Your task to perform on an android device: Go to privacy settings Image 0: 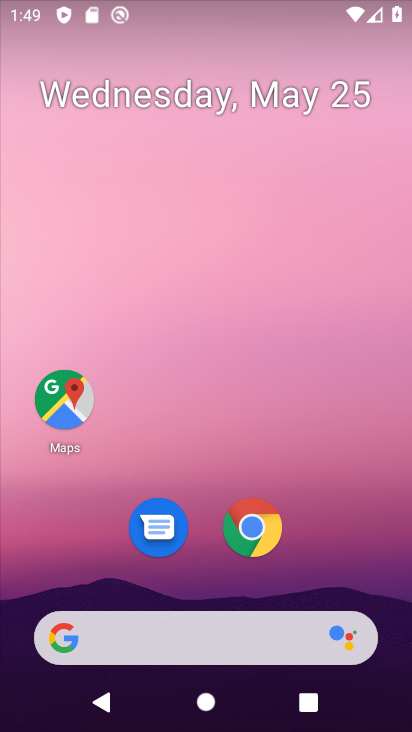
Step 0: click (248, 522)
Your task to perform on an android device: Go to privacy settings Image 1: 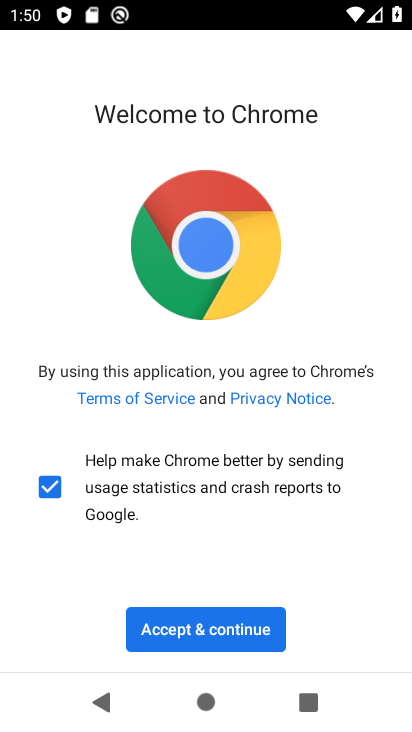
Step 1: click (241, 630)
Your task to perform on an android device: Go to privacy settings Image 2: 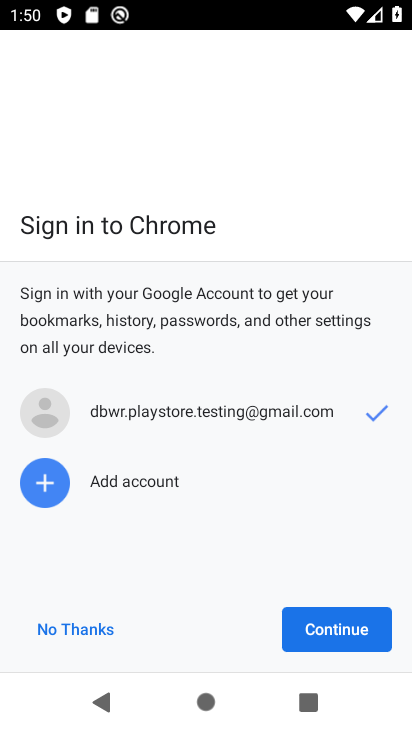
Step 2: click (317, 651)
Your task to perform on an android device: Go to privacy settings Image 3: 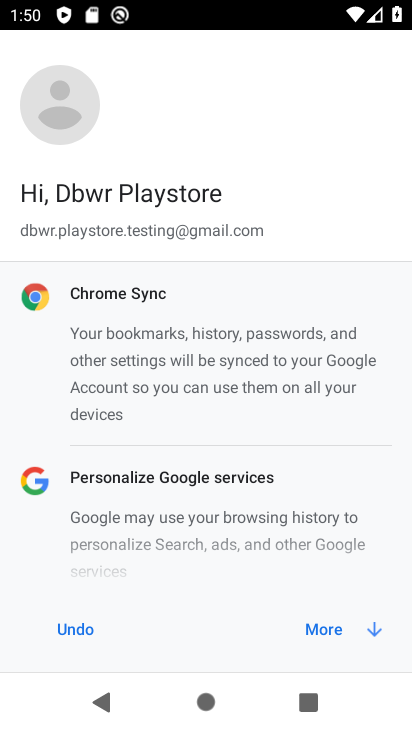
Step 3: click (319, 647)
Your task to perform on an android device: Go to privacy settings Image 4: 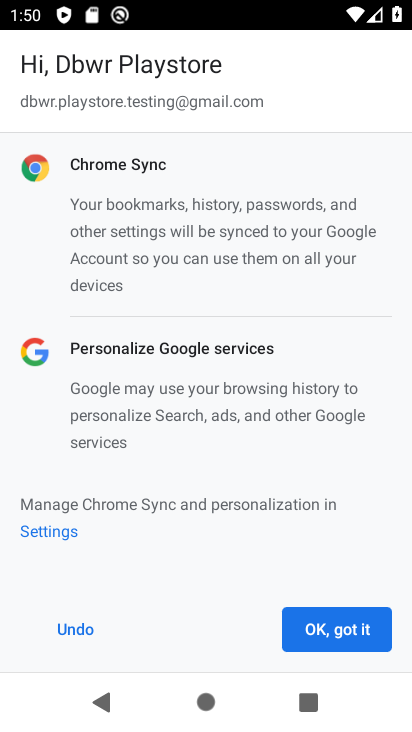
Step 4: click (344, 615)
Your task to perform on an android device: Go to privacy settings Image 5: 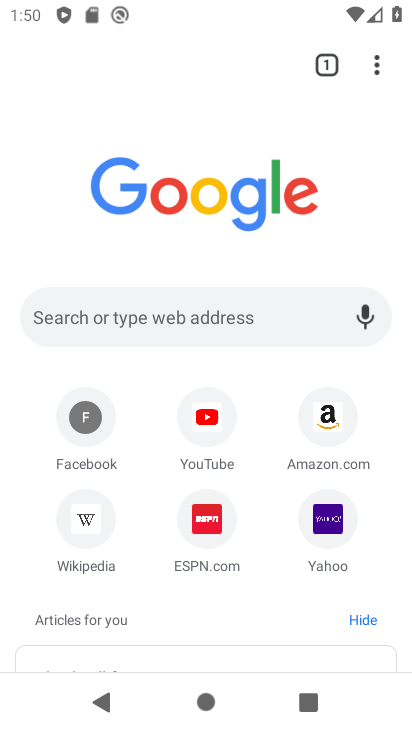
Step 5: drag from (378, 51) to (256, 574)
Your task to perform on an android device: Go to privacy settings Image 6: 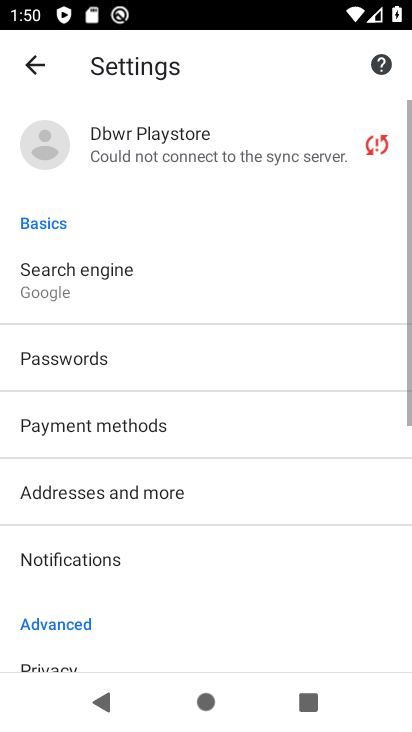
Step 6: drag from (196, 635) to (261, 397)
Your task to perform on an android device: Go to privacy settings Image 7: 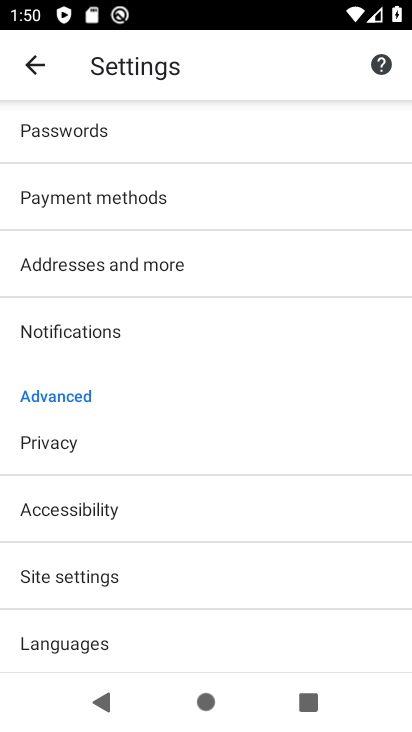
Step 7: click (92, 449)
Your task to perform on an android device: Go to privacy settings Image 8: 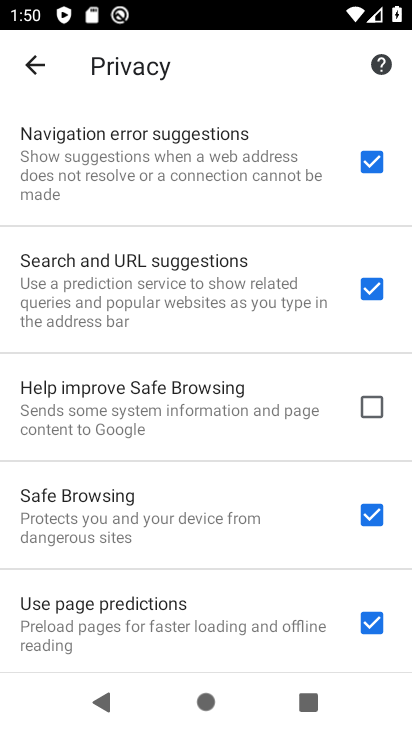
Step 8: task complete